Your task to perform on an android device: Do I have any events this weekend? Image 0: 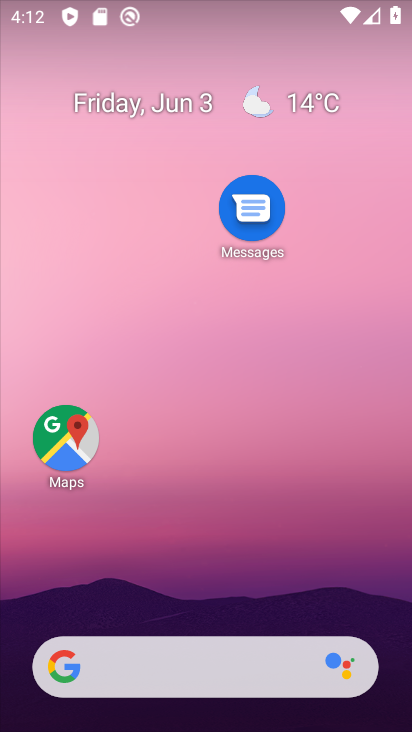
Step 0: drag from (208, 598) to (201, 232)
Your task to perform on an android device: Do I have any events this weekend? Image 1: 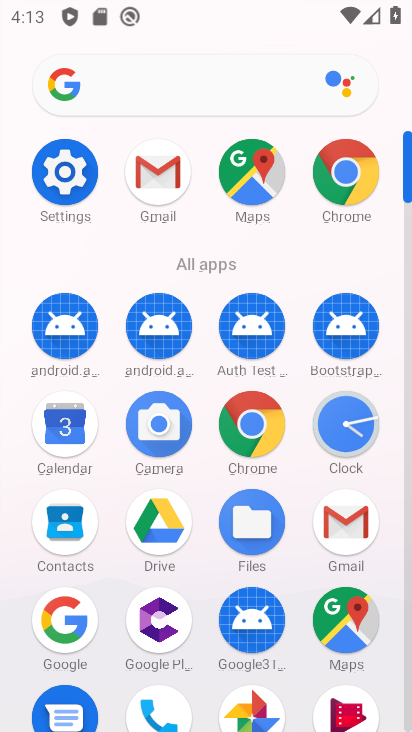
Step 1: click (70, 450)
Your task to perform on an android device: Do I have any events this weekend? Image 2: 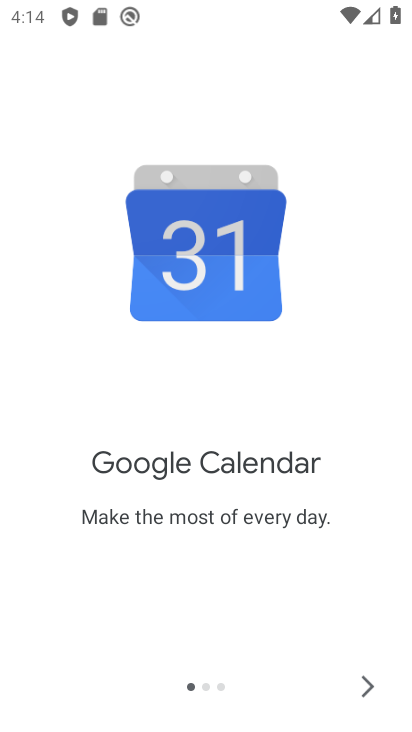
Step 2: click (354, 681)
Your task to perform on an android device: Do I have any events this weekend? Image 3: 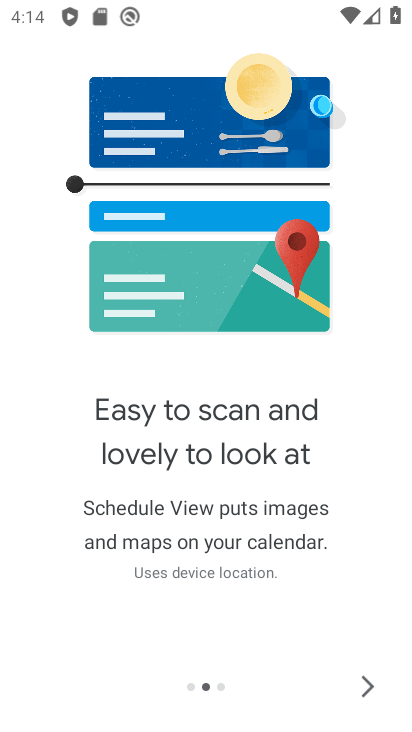
Step 3: click (354, 681)
Your task to perform on an android device: Do I have any events this weekend? Image 4: 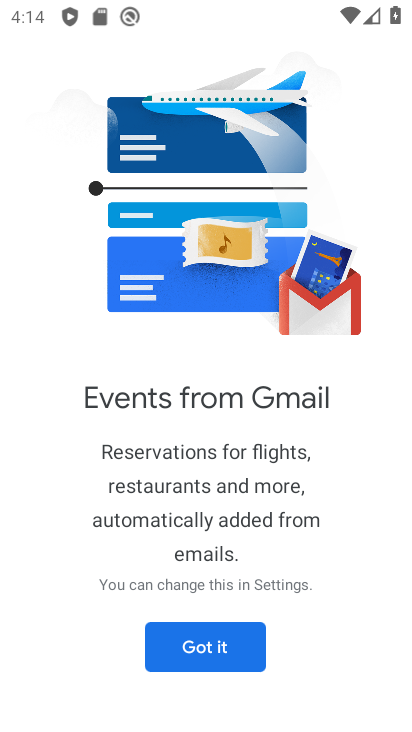
Step 4: click (212, 646)
Your task to perform on an android device: Do I have any events this weekend? Image 5: 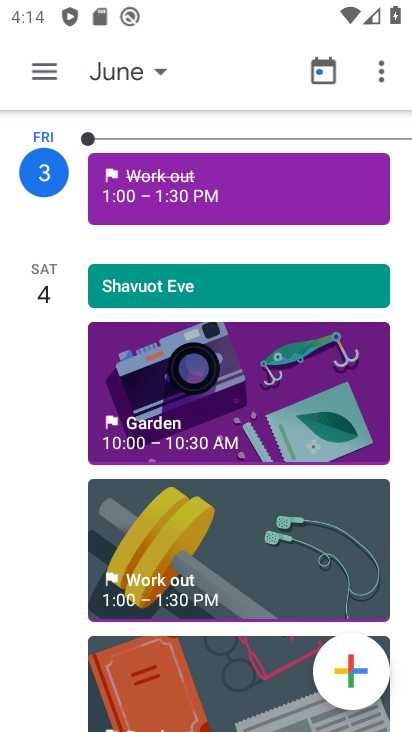
Step 5: click (51, 84)
Your task to perform on an android device: Do I have any events this weekend? Image 6: 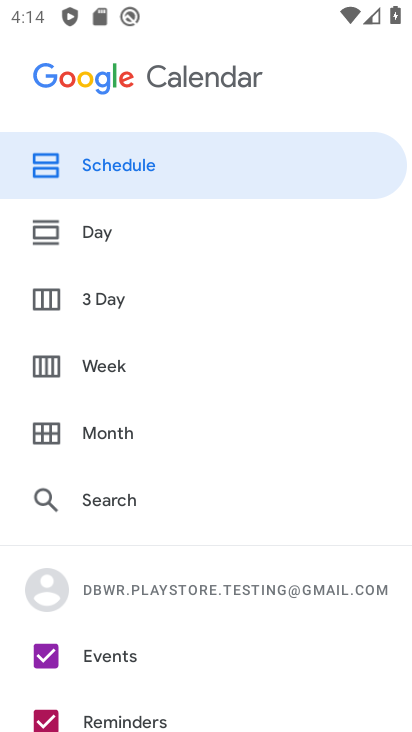
Step 6: click (124, 363)
Your task to perform on an android device: Do I have any events this weekend? Image 7: 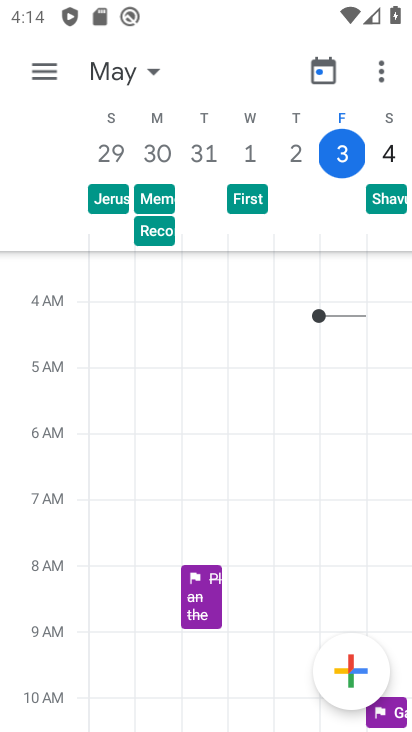
Step 7: click (104, 57)
Your task to perform on an android device: Do I have any events this weekend? Image 8: 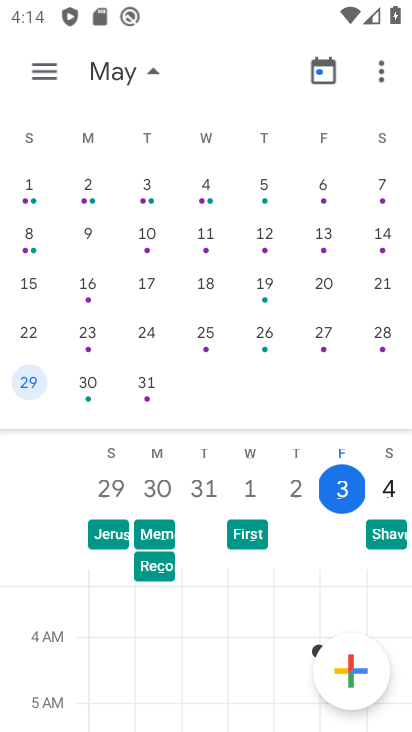
Step 8: drag from (350, 300) to (78, 289)
Your task to perform on an android device: Do I have any events this weekend? Image 9: 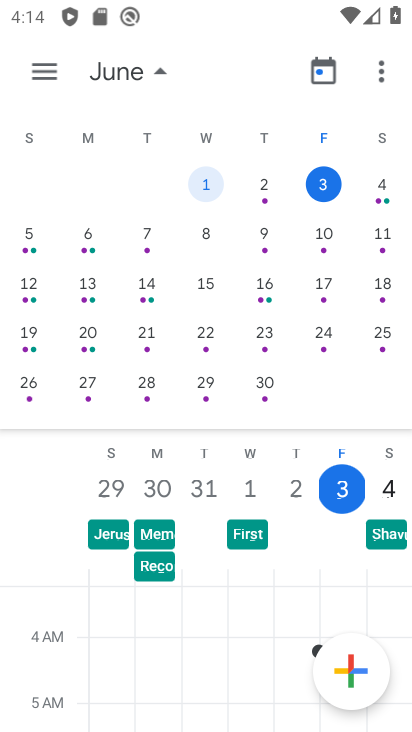
Step 9: drag from (80, 247) to (408, 303)
Your task to perform on an android device: Do I have any events this weekend? Image 10: 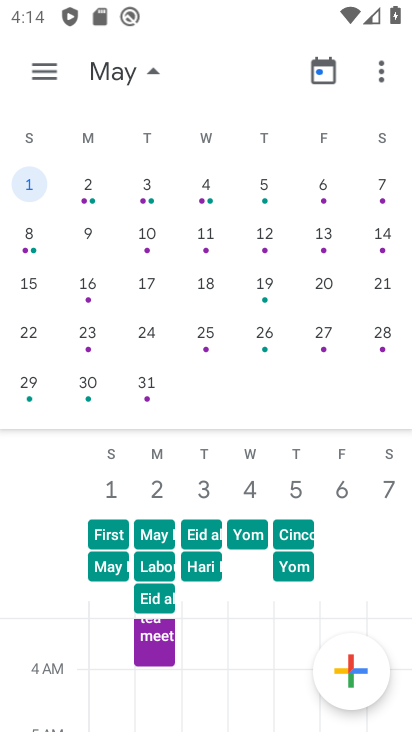
Step 10: click (25, 388)
Your task to perform on an android device: Do I have any events this weekend? Image 11: 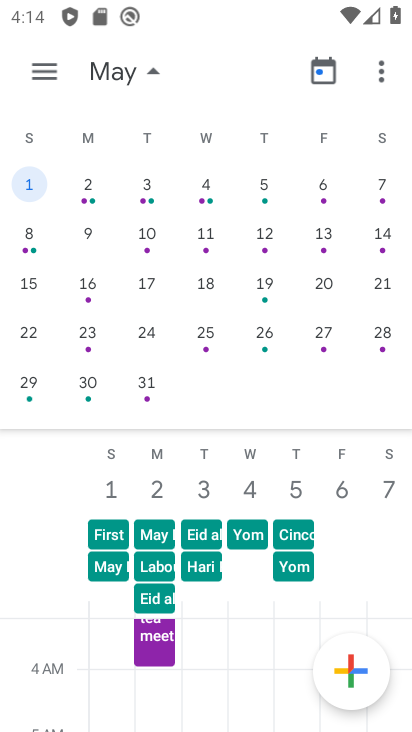
Step 11: click (37, 380)
Your task to perform on an android device: Do I have any events this weekend? Image 12: 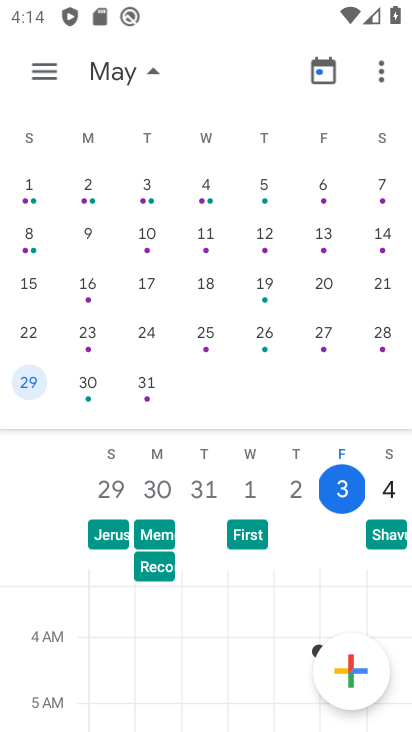
Step 12: task complete